Your task to perform on an android device: toggle notifications settings in the gmail app Image 0: 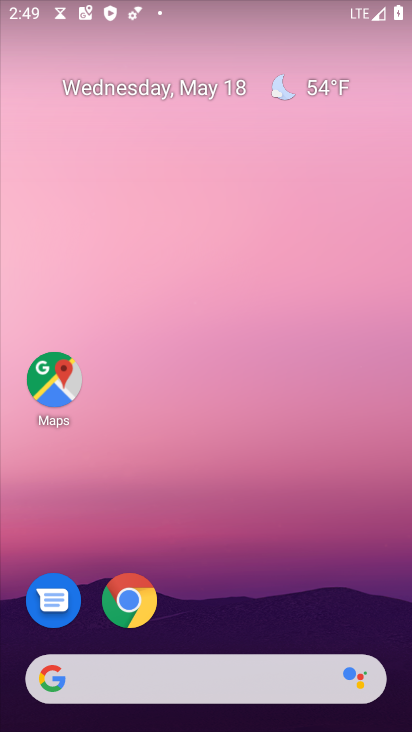
Step 0: drag from (206, 559) to (301, 110)
Your task to perform on an android device: toggle notifications settings in the gmail app Image 1: 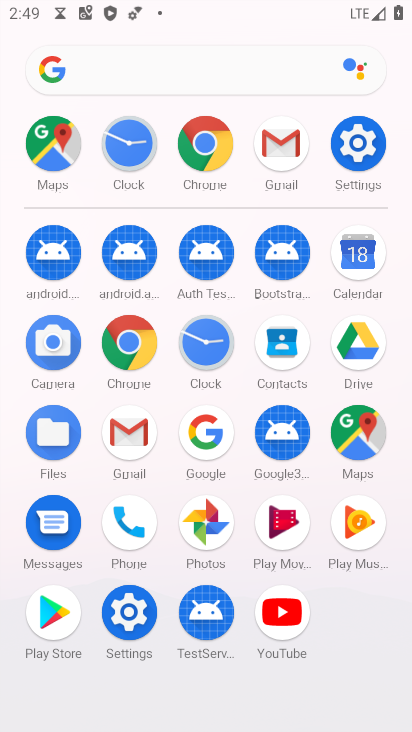
Step 1: click (296, 143)
Your task to perform on an android device: toggle notifications settings in the gmail app Image 2: 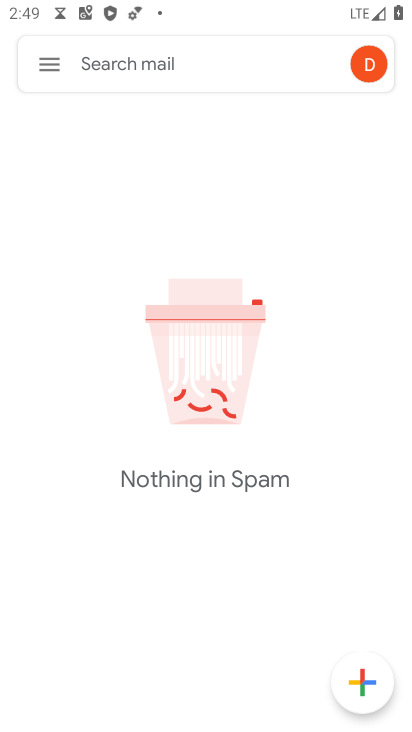
Step 2: click (44, 64)
Your task to perform on an android device: toggle notifications settings in the gmail app Image 3: 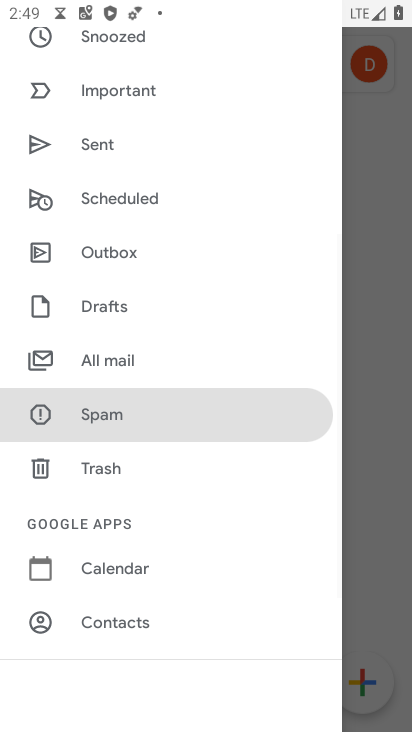
Step 3: drag from (186, 531) to (288, 88)
Your task to perform on an android device: toggle notifications settings in the gmail app Image 4: 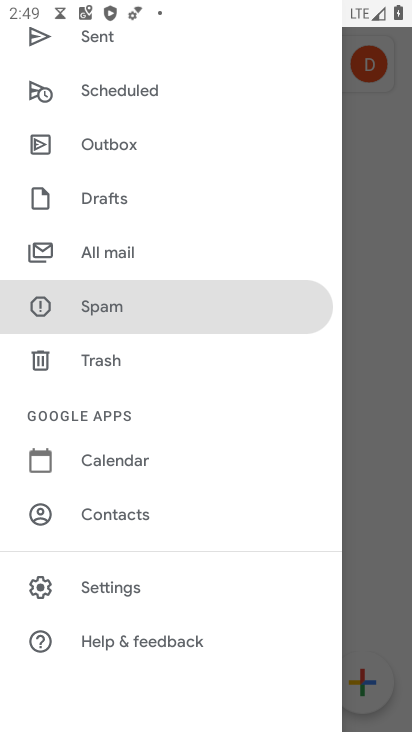
Step 4: click (110, 588)
Your task to perform on an android device: toggle notifications settings in the gmail app Image 5: 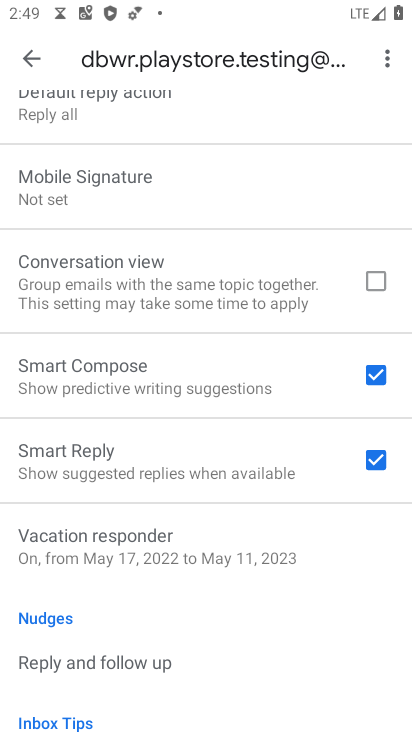
Step 5: drag from (271, 130) to (231, 650)
Your task to perform on an android device: toggle notifications settings in the gmail app Image 6: 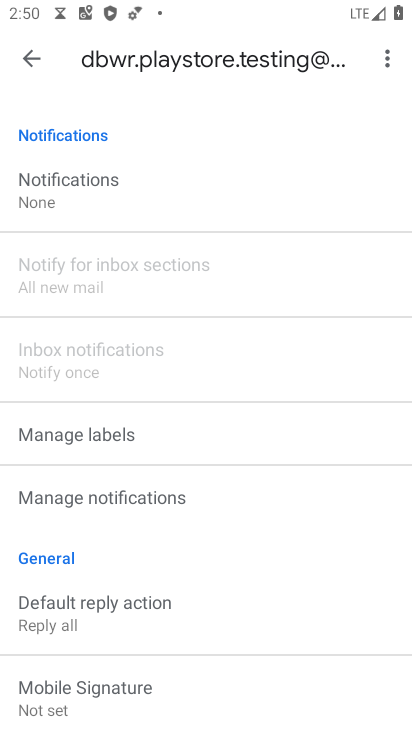
Step 6: drag from (224, 202) to (211, 615)
Your task to perform on an android device: toggle notifications settings in the gmail app Image 7: 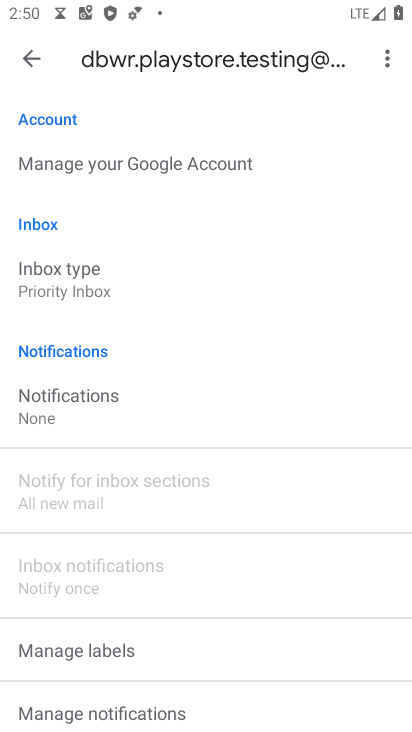
Step 7: click (43, 410)
Your task to perform on an android device: toggle notifications settings in the gmail app Image 8: 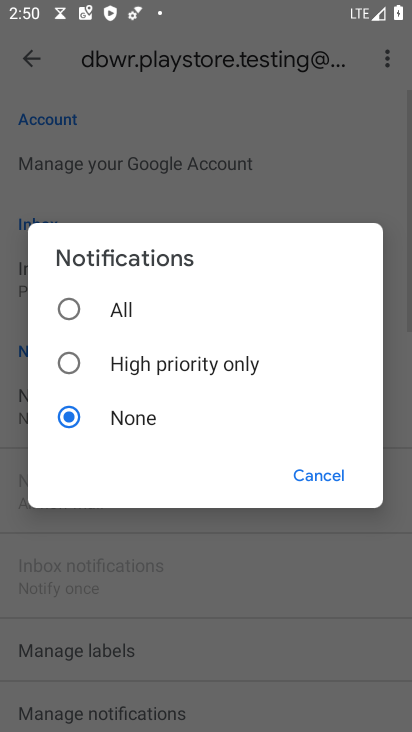
Step 8: click (67, 304)
Your task to perform on an android device: toggle notifications settings in the gmail app Image 9: 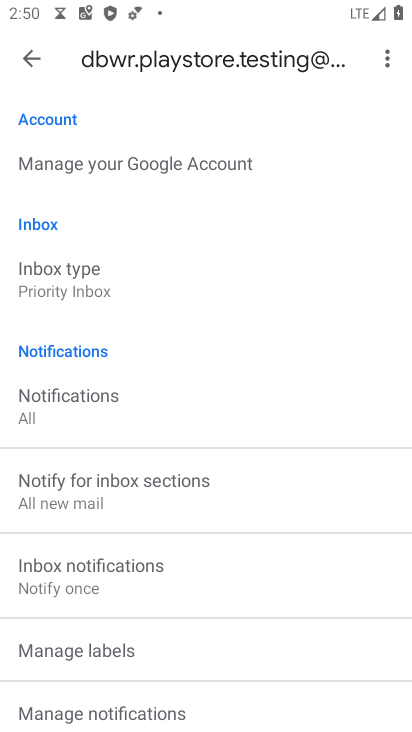
Step 9: click (66, 415)
Your task to perform on an android device: toggle notifications settings in the gmail app Image 10: 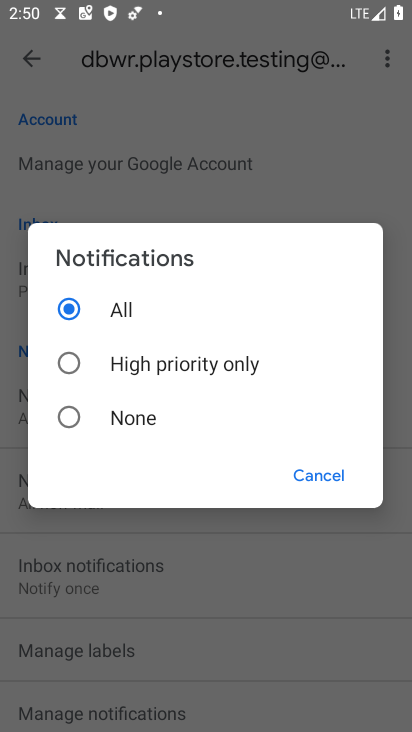
Step 10: task complete